Your task to perform on an android device: Show me popular games on the Play Store Image 0: 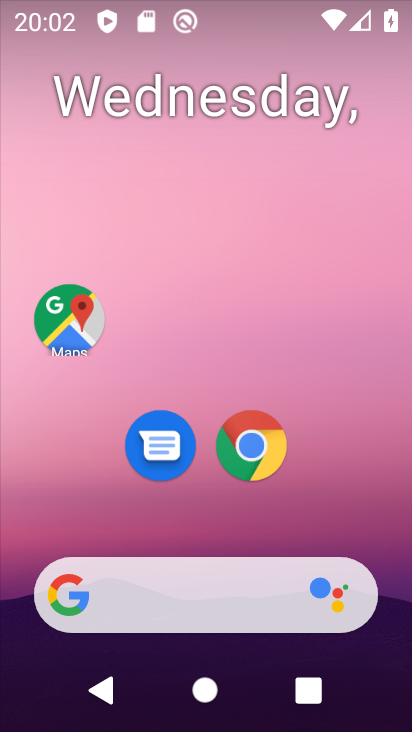
Step 0: drag from (316, 526) to (358, 100)
Your task to perform on an android device: Show me popular games on the Play Store Image 1: 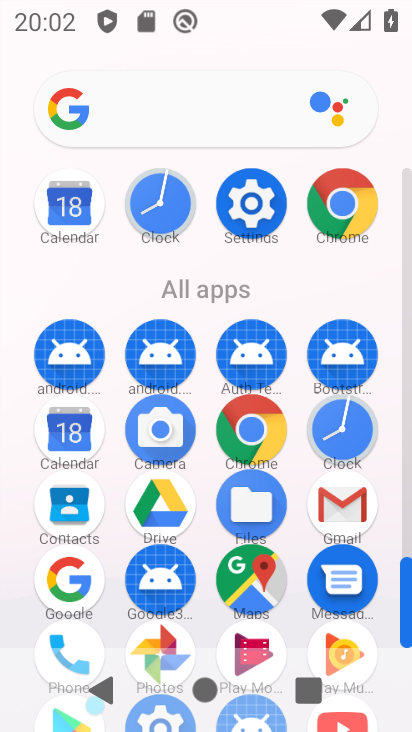
Step 1: drag from (219, 623) to (241, 345)
Your task to perform on an android device: Show me popular games on the Play Store Image 2: 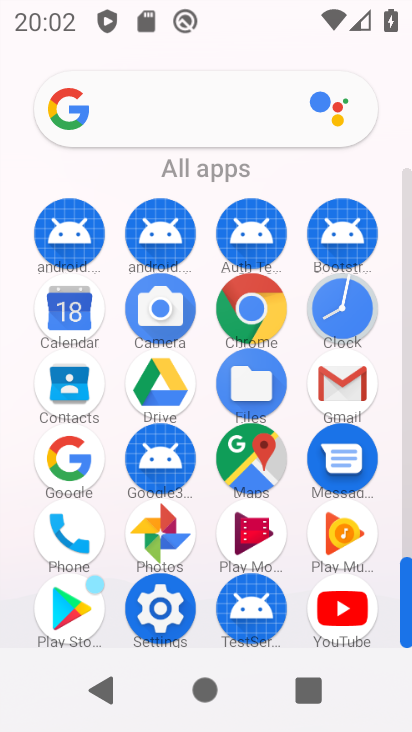
Step 2: click (63, 603)
Your task to perform on an android device: Show me popular games on the Play Store Image 3: 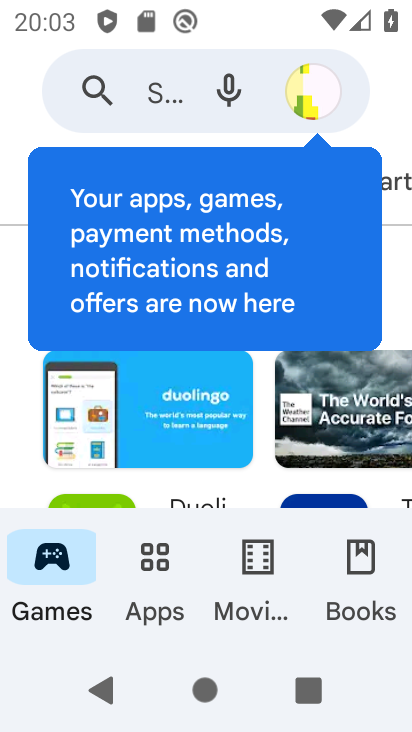
Step 3: click (174, 571)
Your task to perform on an android device: Show me popular games on the Play Store Image 4: 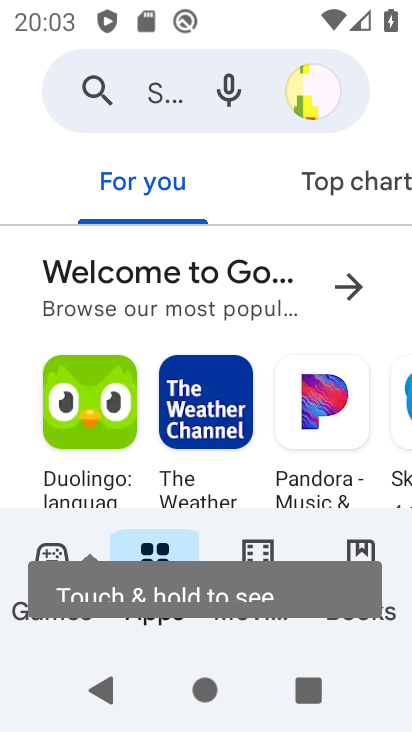
Step 4: click (24, 558)
Your task to perform on an android device: Show me popular games on the Play Store Image 5: 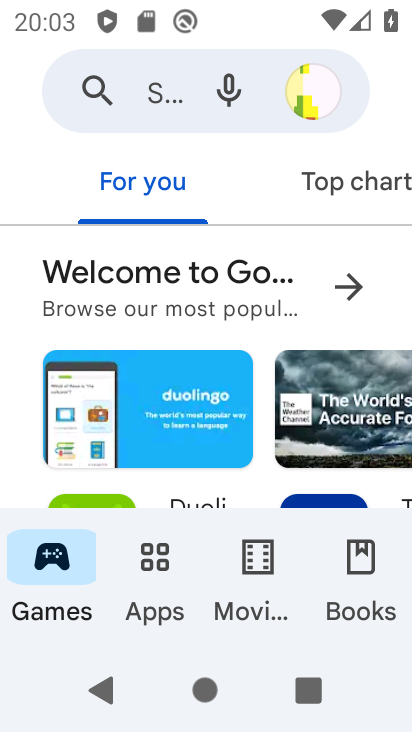
Step 5: task complete